Your task to perform on an android device: toggle sleep mode Image 0: 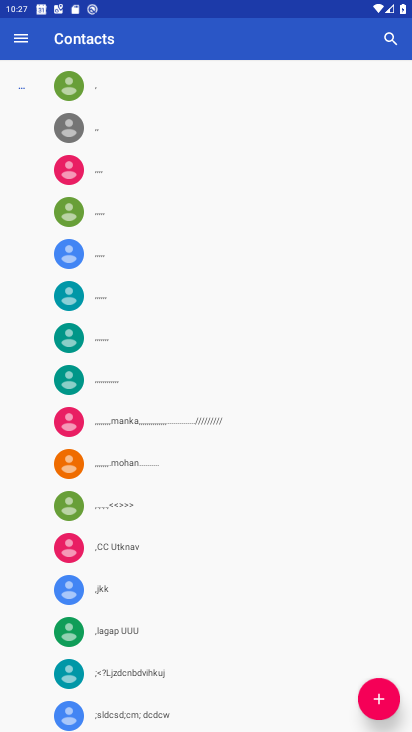
Step 0: press home button
Your task to perform on an android device: toggle sleep mode Image 1: 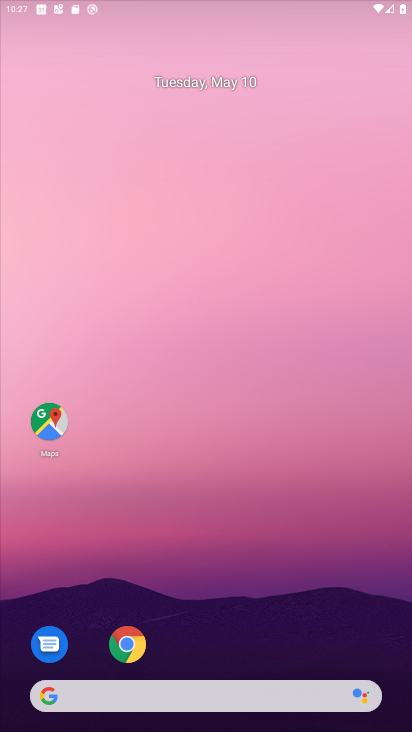
Step 1: drag from (268, 612) to (292, 233)
Your task to perform on an android device: toggle sleep mode Image 2: 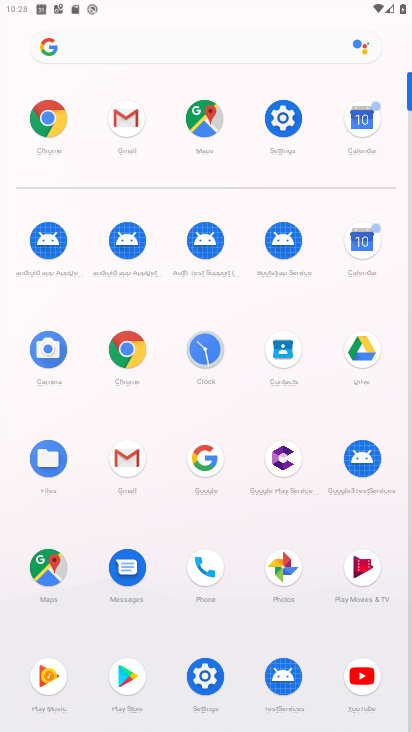
Step 2: click (283, 137)
Your task to perform on an android device: toggle sleep mode Image 3: 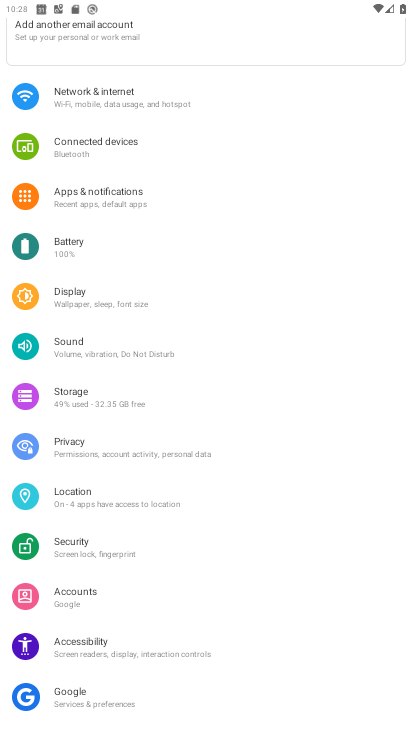
Step 3: click (144, 304)
Your task to perform on an android device: toggle sleep mode Image 4: 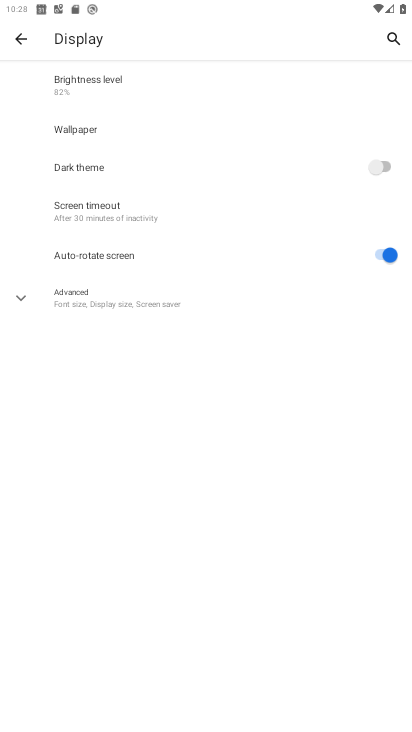
Step 4: task complete